Your task to perform on an android device: Go to privacy settings Image 0: 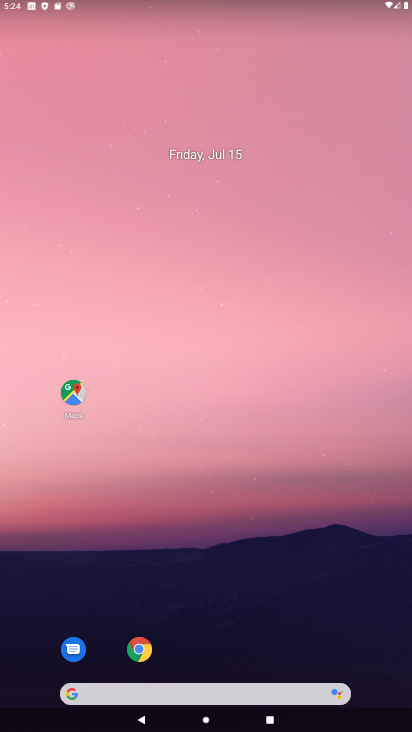
Step 0: drag from (201, 688) to (215, 171)
Your task to perform on an android device: Go to privacy settings Image 1: 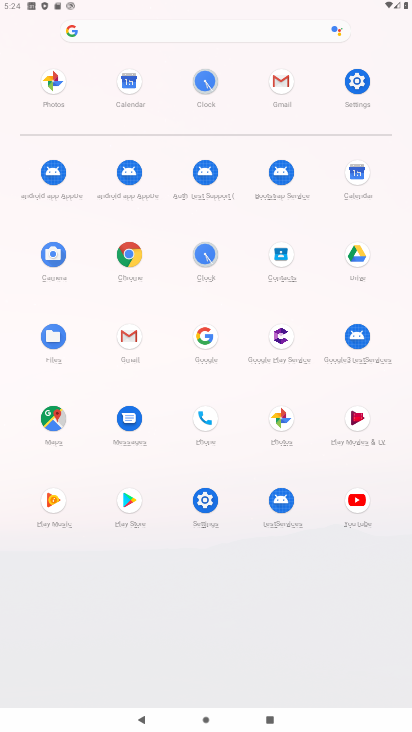
Step 1: click (361, 81)
Your task to perform on an android device: Go to privacy settings Image 2: 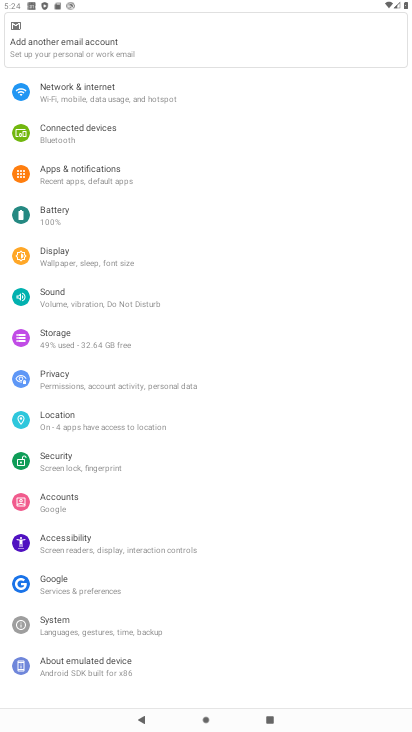
Step 2: click (65, 380)
Your task to perform on an android device: Go to privacy settings Image 3: 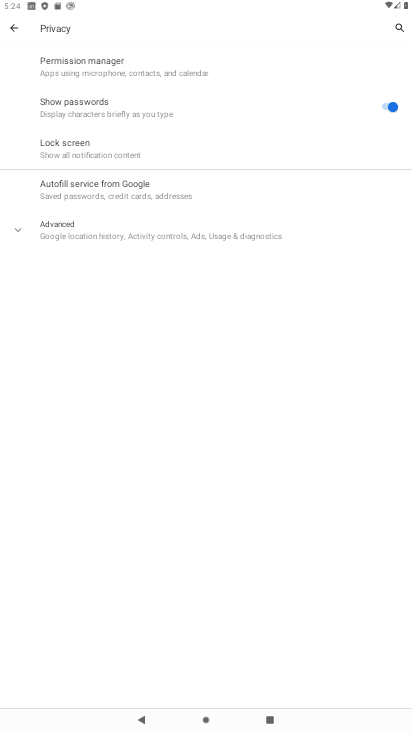
Step 3: task complete